Your task to perform on an android device: add a label to a message in the gmail app Image 0: 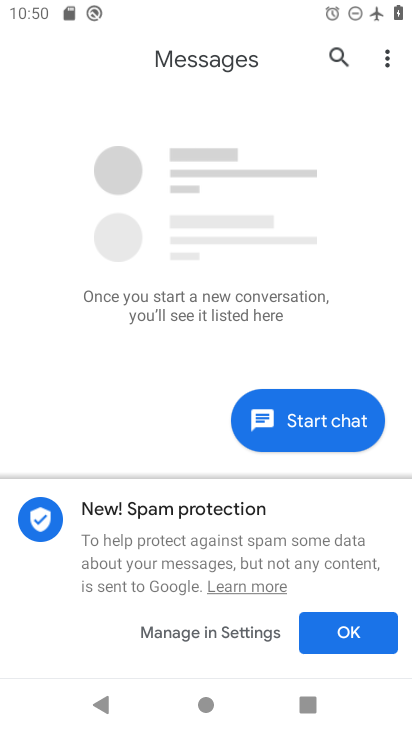
Step 0: drag from (245, 590) to (285, 465)
Your task to perform on an android device: add a label to a message in the gmail app Image 1: 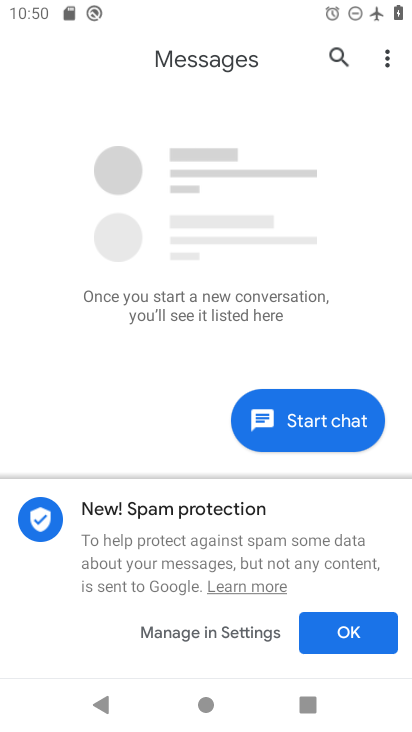
Step 1: press home button
Your task to perform on an android device: add a label to a message in the gmail app Image 2: 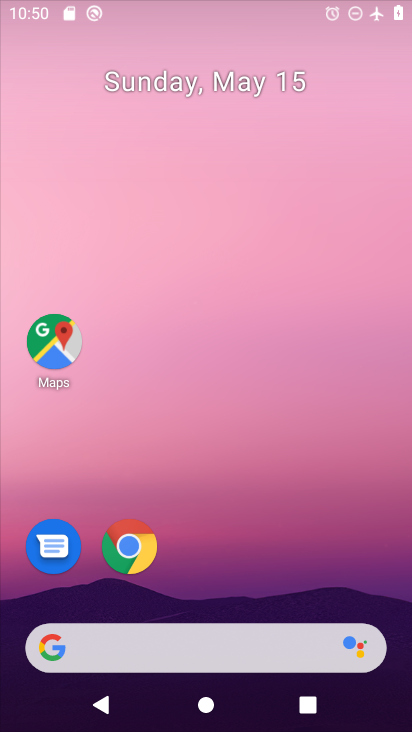
Step 2: drag from (235, 588) to (301, 178)
Your task to perform on an android device: add a label to a message in the gmail app Image 3: 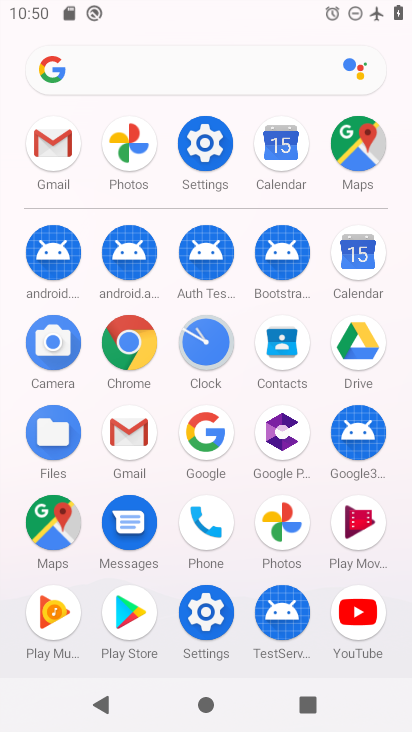
Step 3: click (51, 162)
Your task to perform on an android device: add a label to a message in the gmail app Image 4: 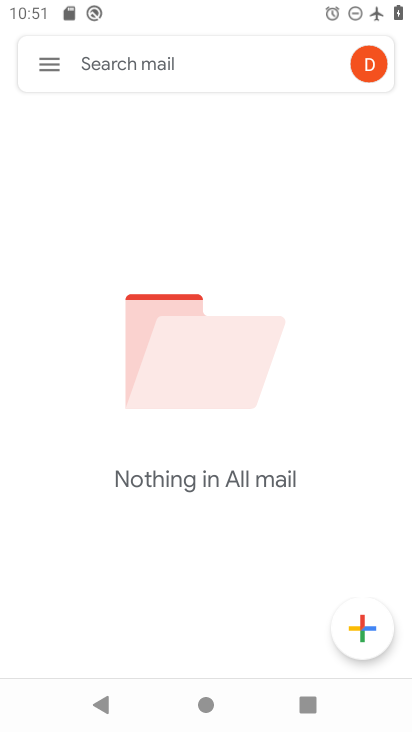
Step 4: task complete